Your task to perform on an android device: Search for "razer naga" on ebay.com, select the first entry, and add it to the cart. Image 0: 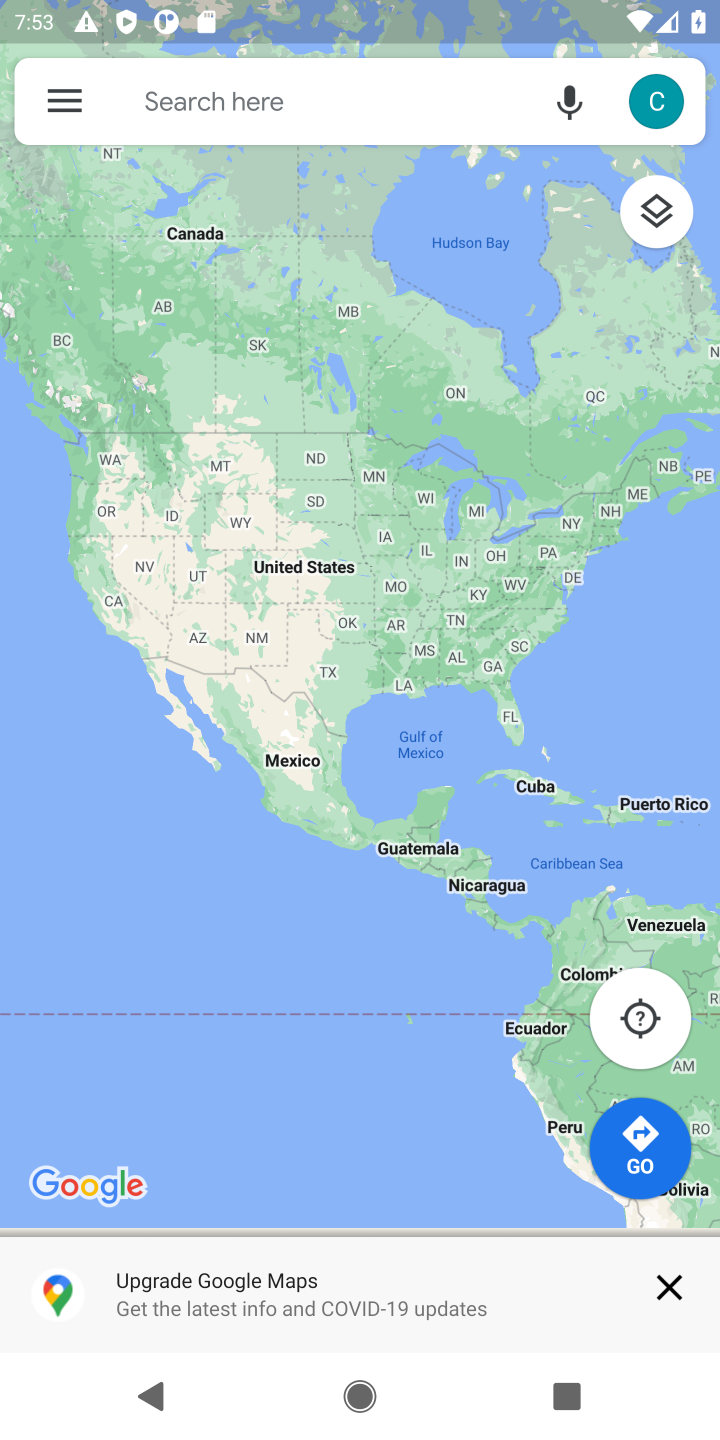
Step 0: task complete